Your task to perform on an android device: Open Google Maps Image 0: 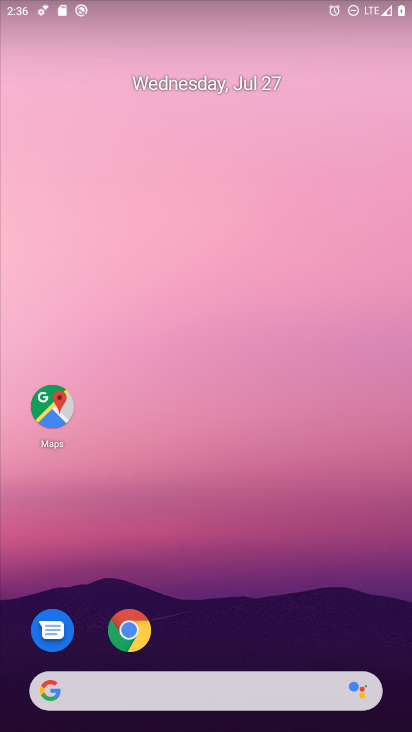
Step 0: click (53, 406)
Your task to perform on an android device: Open Google Maps Image 1: 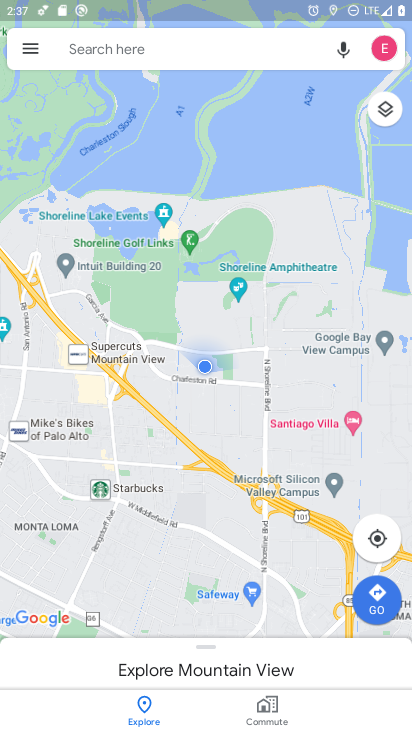
Step 1: click (198, 303)
Your task to perform on an android device: Open Google Maps Image 2: 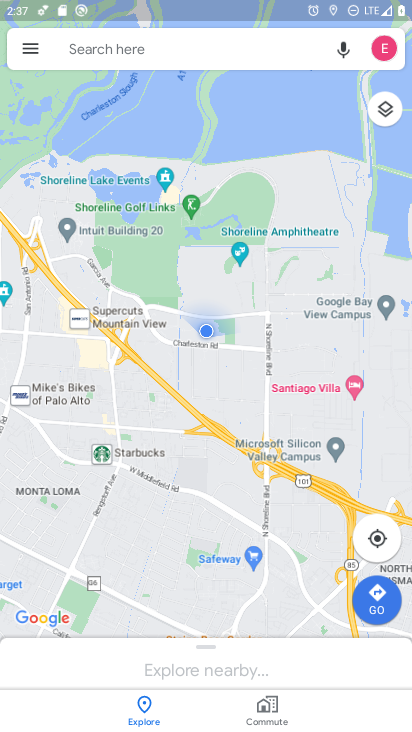
Step 2: task complete